Your task to perform on an android device: allow notifications from all sites in the chrome app Image 0: 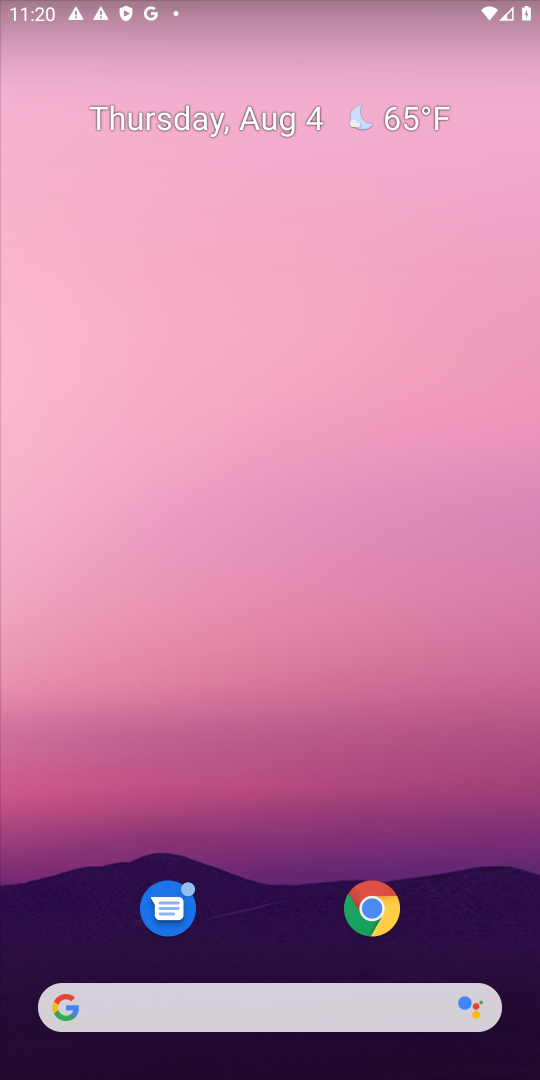
Step 0: click (385, 895)
Your task to perform on an android device: allow notifications from all sites in the chrome app Image 1: 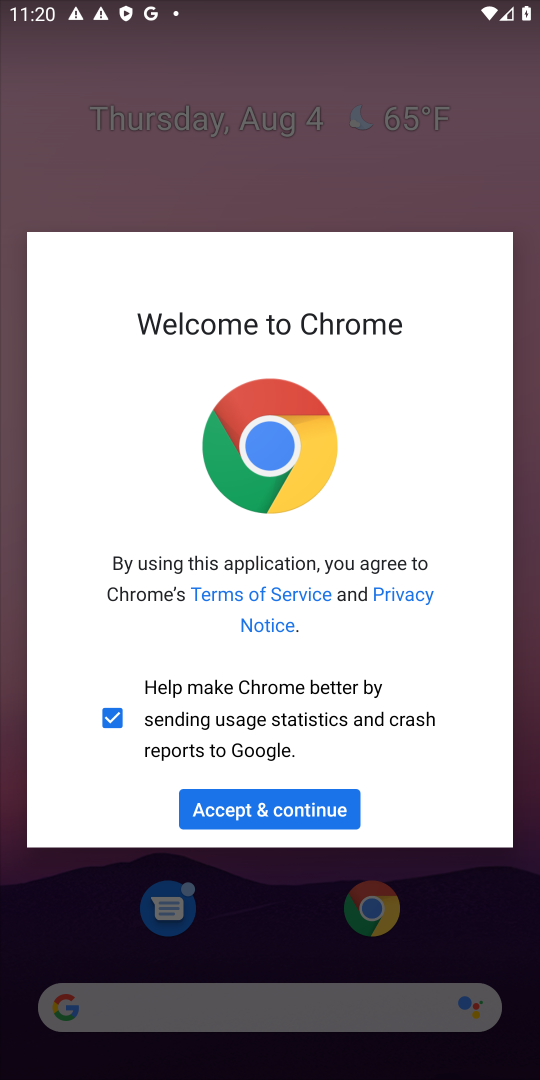
Step 1: click (324, 818)
Your task to perform on an android device: allow notifications from all sites in the chrome app Image 2: 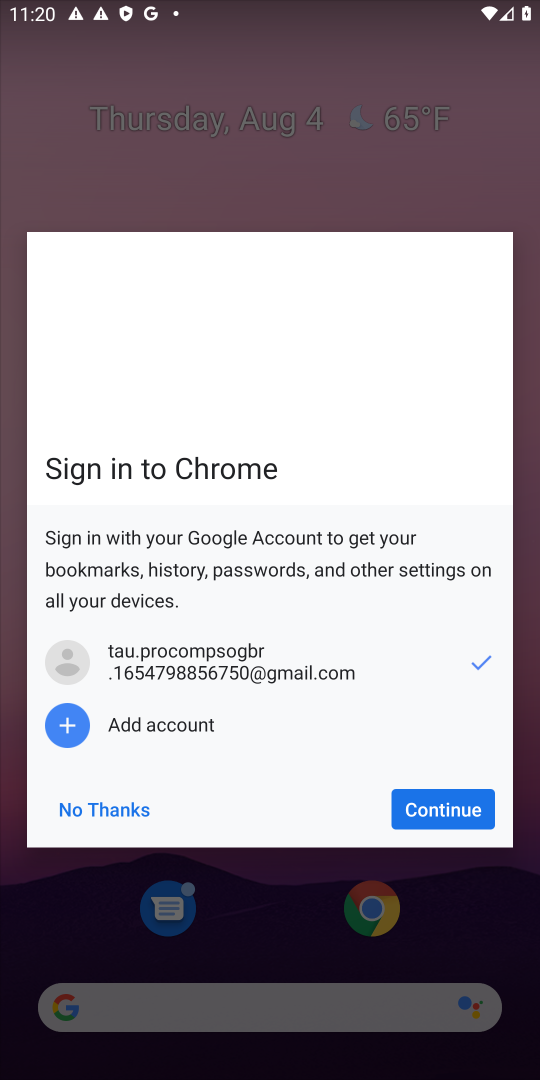
Step 2: click (489, 815)
Your task to perform on an android device: allow notifications from all sites in the chrome app Image 3: 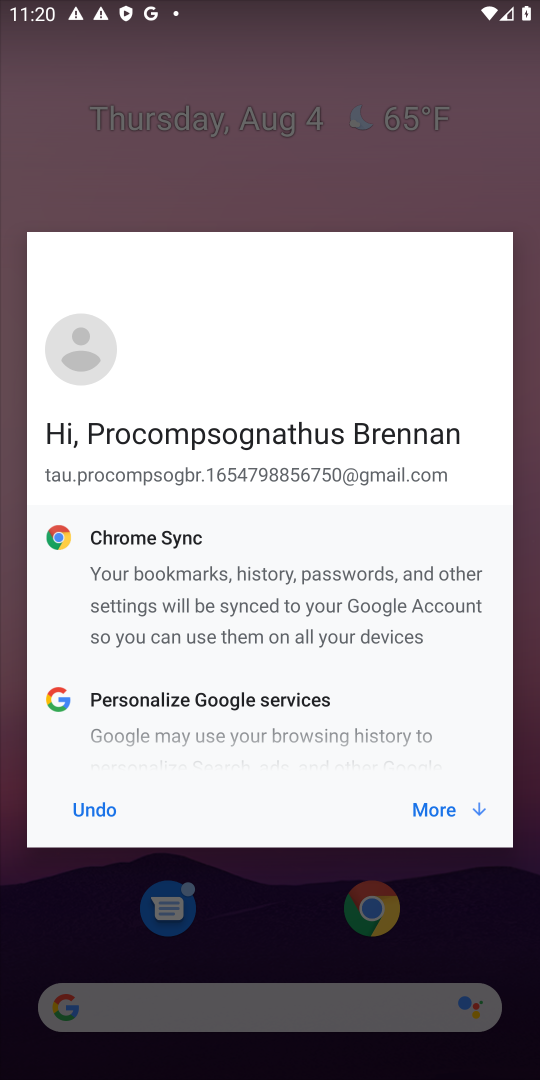
Step 3: click (485, 815)
Your task to perform on an android device: allow notifications from all sites in the chrome app Image 4: 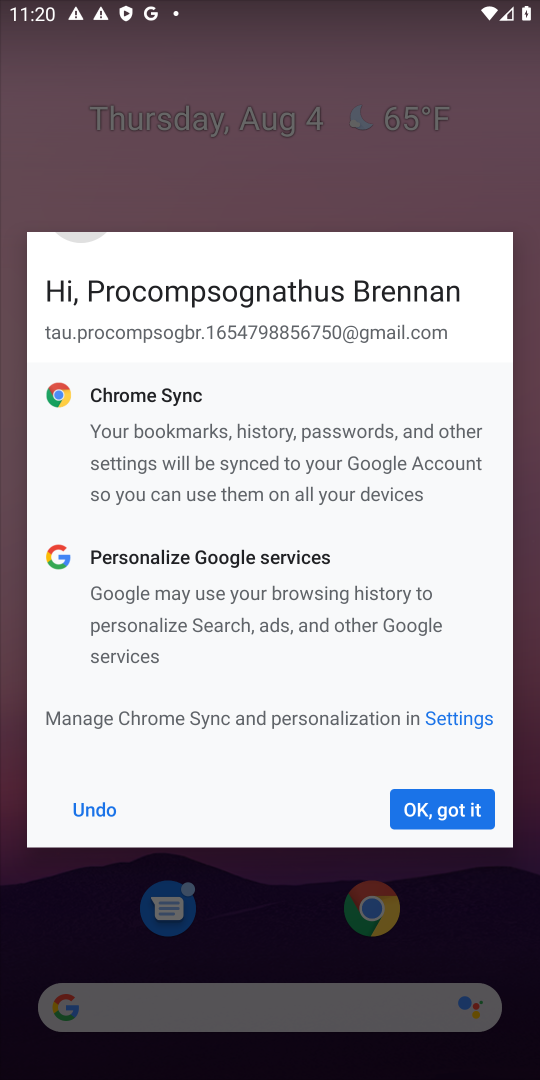
Step 4: click (483, 818)
Your task to perform on an android device: allow notifications from all sites in the chrome app Image 5: 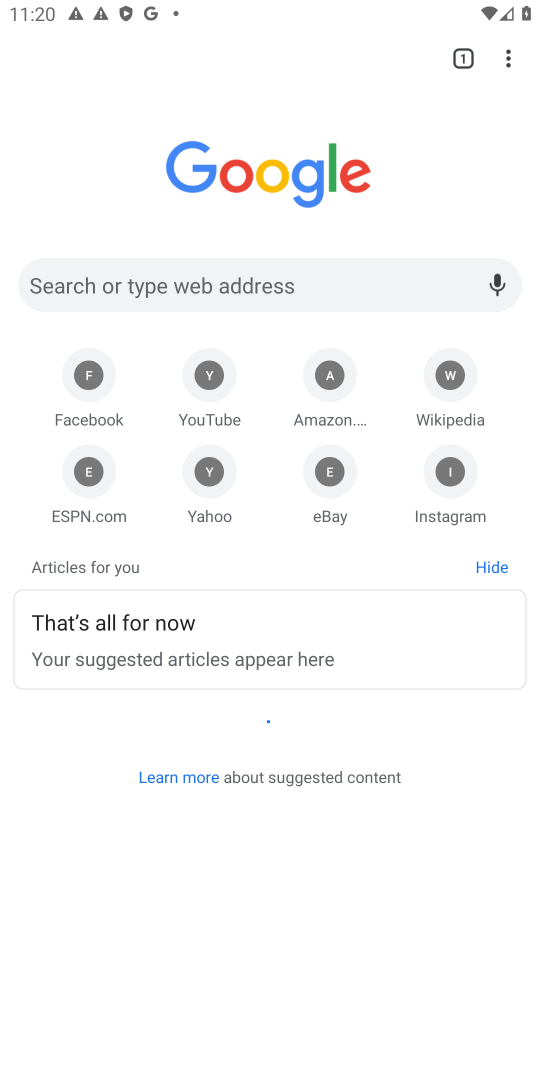
Step 5: click (505, 55)
Your task to perform on an android device: allow notifications from all sites in the chrome app Image 6: 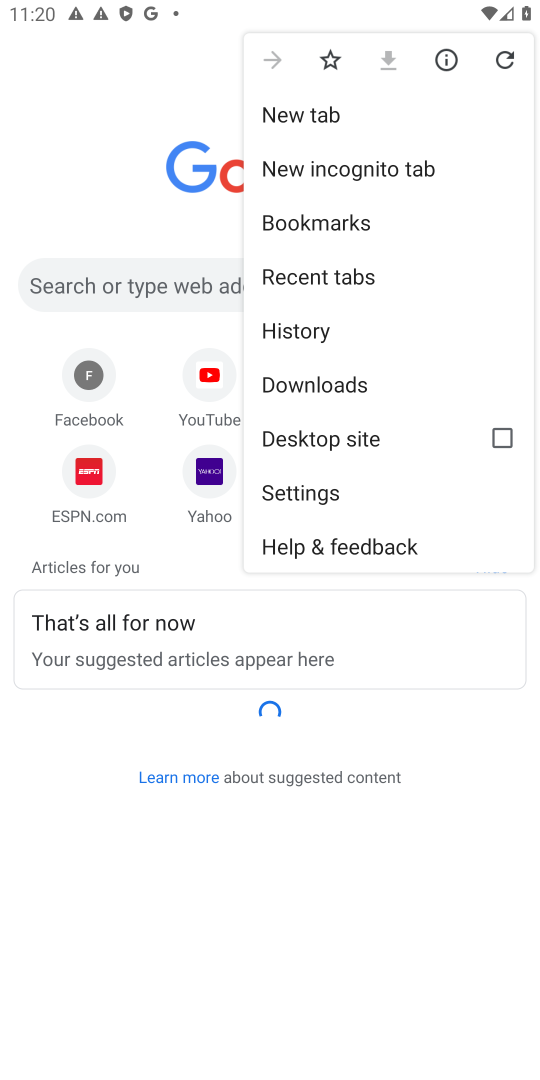
Step 6: click (357, 497)
Your task to perform on an android device: allow notifications from all sites in the chrome app Image 7: 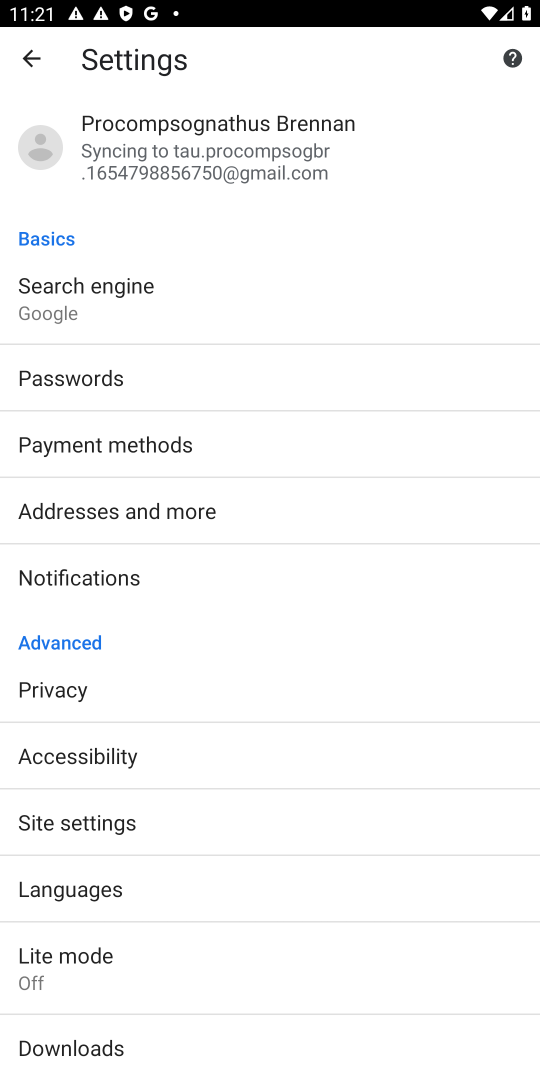
Step 7: click (243, 821)
Your task to perform on an android device: allow notifications from all sites in the chrome app Image 8: 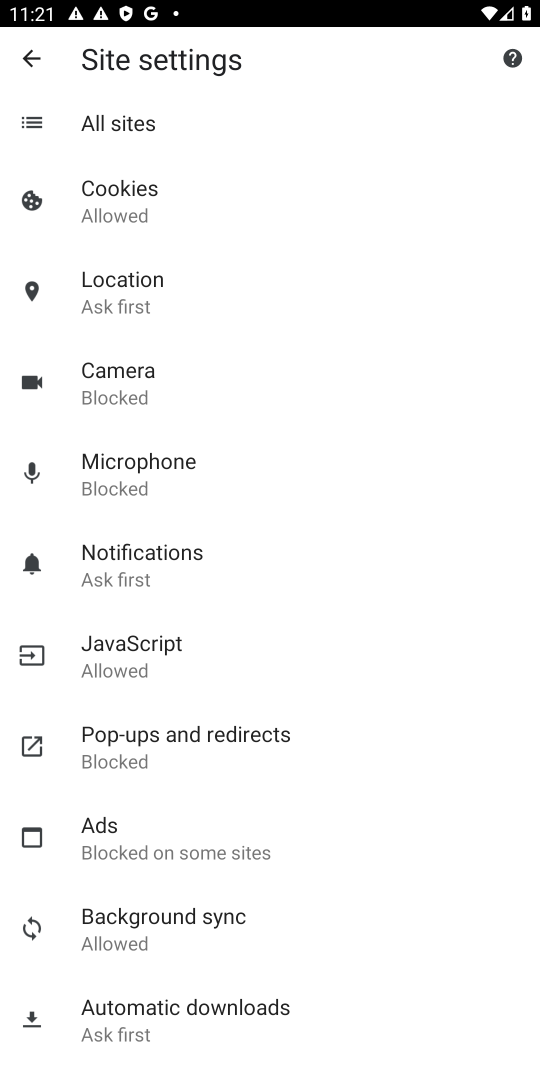
Step 8: click (253, 548)
Your task to perform on an android device: allow notifications from all sites in the chrome app Image 9: 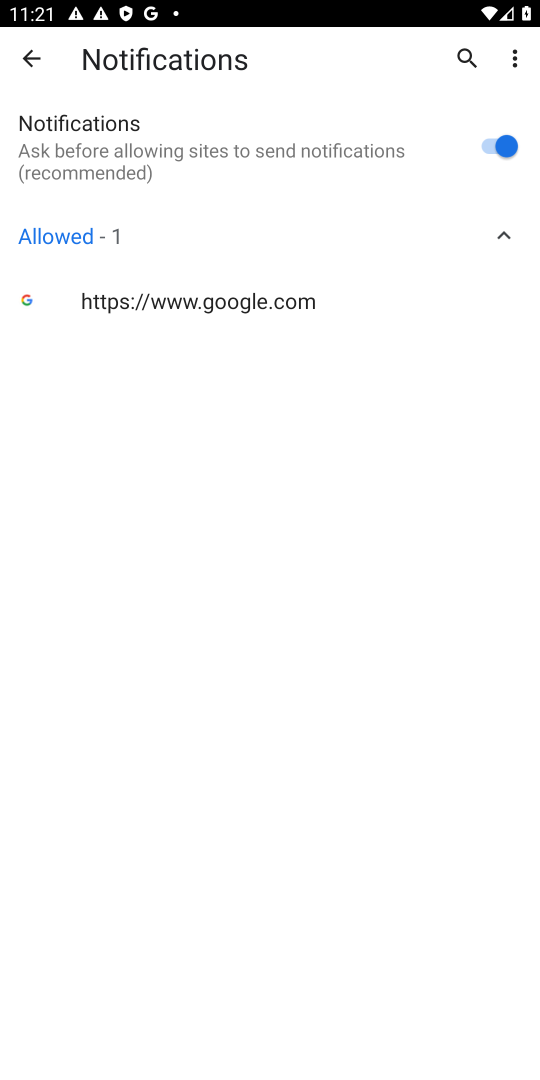
Step 9: task complete